Your task to perform on an android device: change notification settings in the gmail app Image 0: 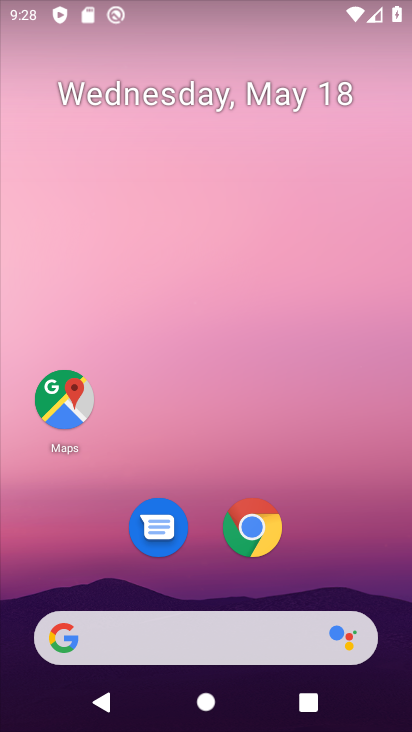
Step 0: drag from (346, 567) to (281, 94)
Your task to perform on an android device: change notification settings in the gmail app Image 1: 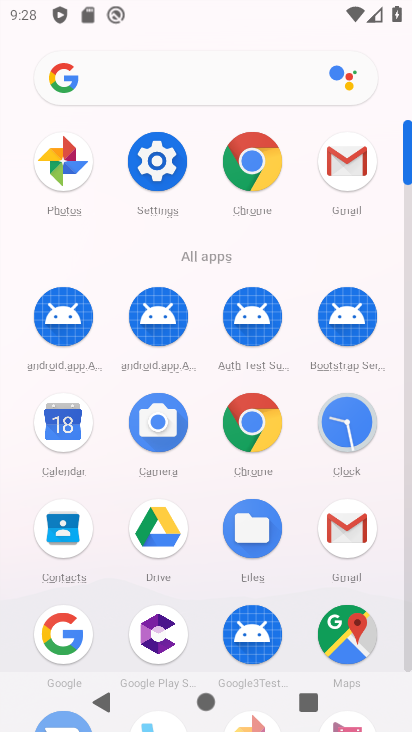
Step 1: click (347, 170)
Your task to perform on an android device: change notification settings in the gmail app Image 2: 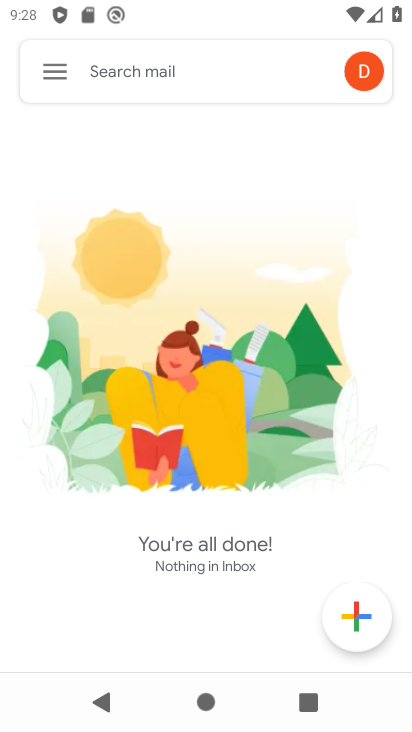
Step 2: click (54, 74)
Your task to perform on an android device: change notification settings in the gmail app Image 3: 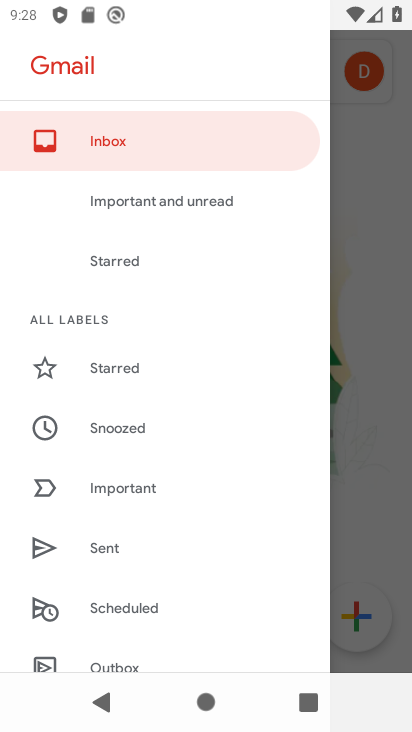
Step 3: drag from (193, 653) to (218, 229)
Your task to perform on an android device: change notification settings in the gmail app Image 4: 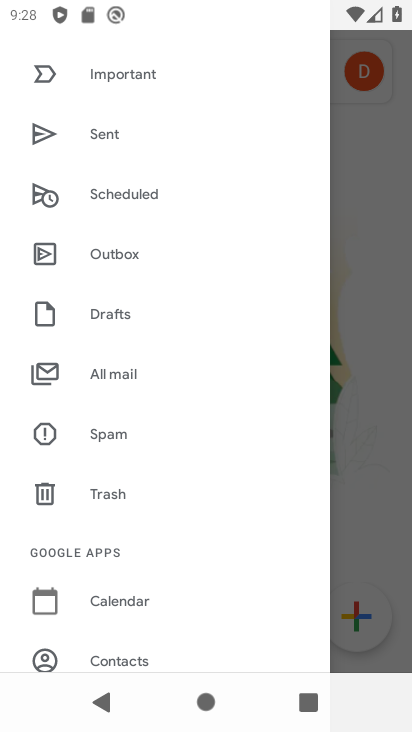
Step 4: drag from (169, 596) to (210, 274)
Your task to perform on an android device: change notification settings in the gmail app Image 5: 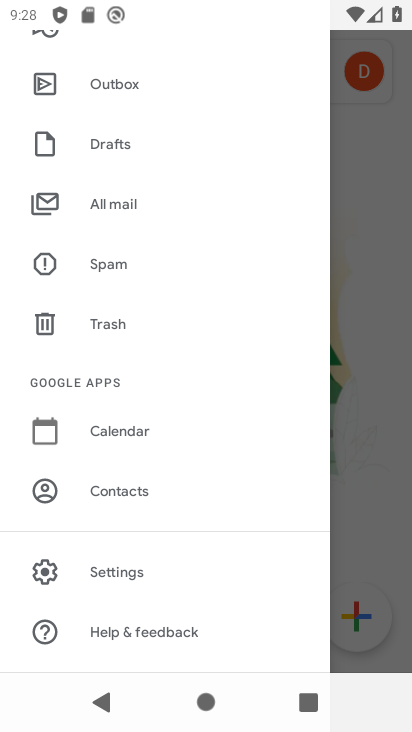
Step 5: click (131, 566)
Your task to perform on an android device: change notification settings in the gmail app Image 6: 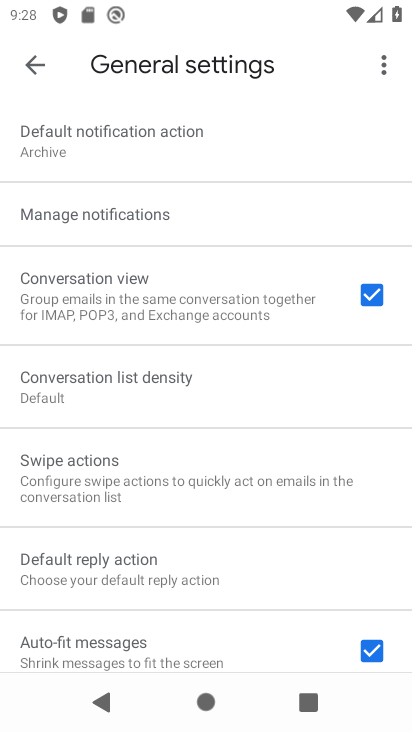
Step 6: click (191, 214)
Your task to perform on an android device: change notification settings in the gmail app Image 7: 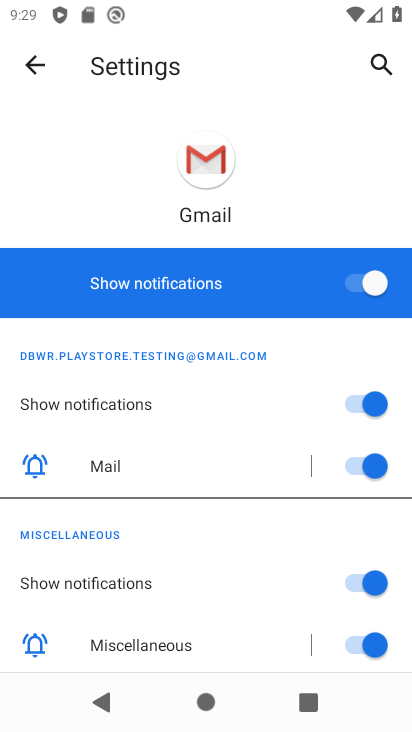
Step 7: click (357, 578)
Your task to perform on an android device: change notification settings in the gmail app Image 8: 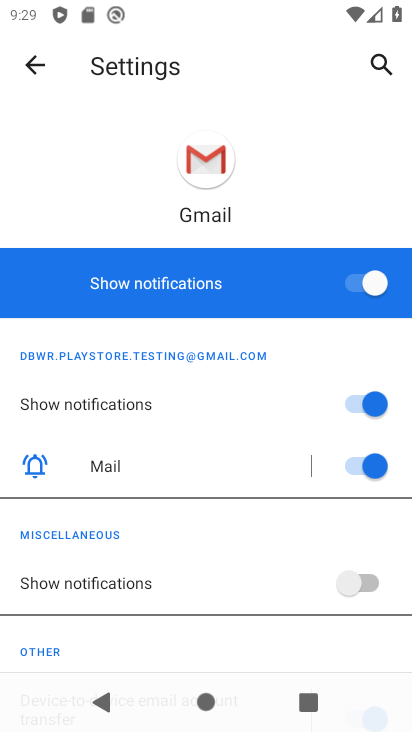
Step 8: task complete